Your task to perform on an android device: Open my contact list Image 0: 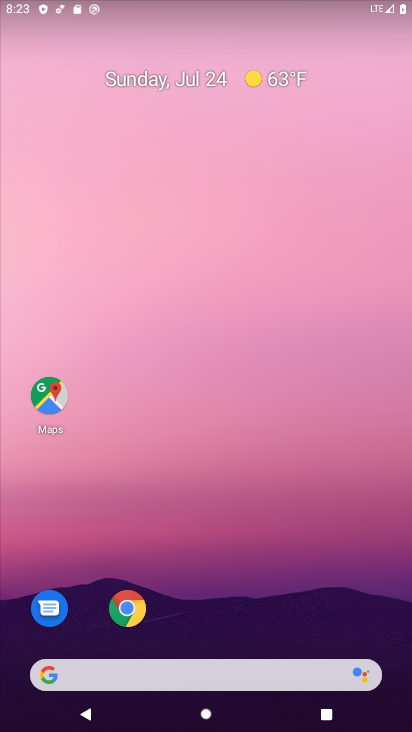
Step 0: press home button
Your task to perform on an android device: Open my contact list Image 1: 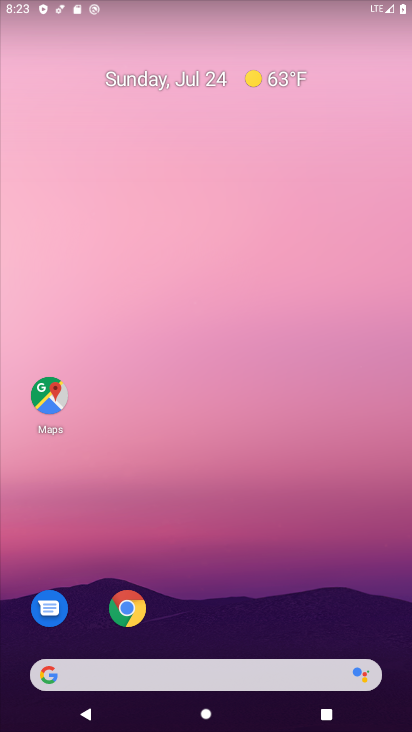
Step 1: drag from (218, 636) to (274, 18)
Your task to perform on an android device: Open my contact list Image 2: 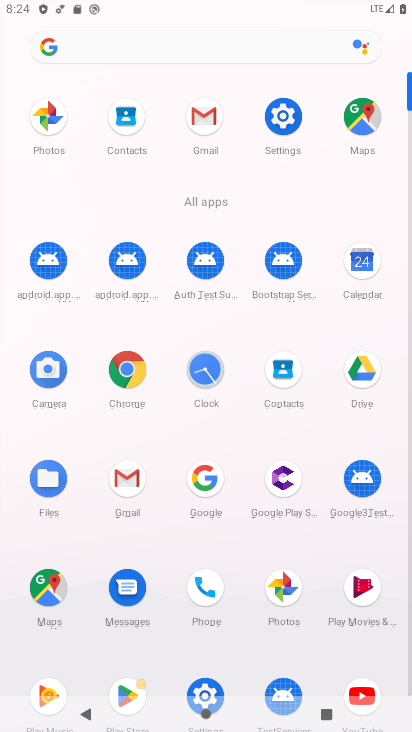
Step 2: click (278, 365)
Your task to perform on an android device: Open my contact list Image 3: 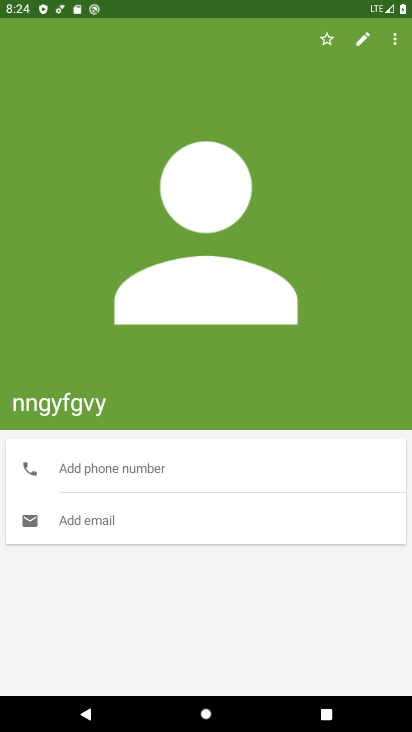
Step 3: task complete